Your task to perform on an android device: Show the shopping cart on costco.com. Search for "razer thresher" on costco.com, select the first entry, add it to the cart, then select checkout. Image 0: 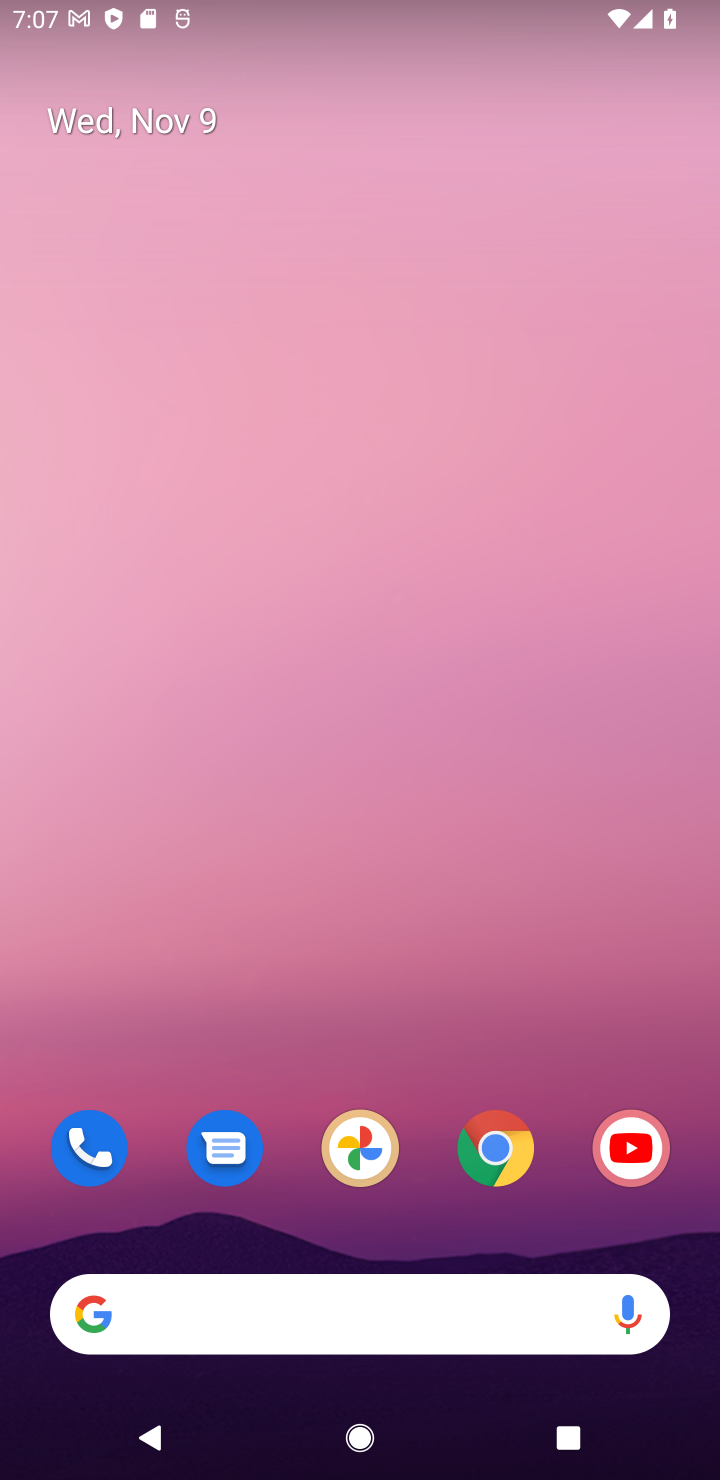
Step 0: click (515, 1160)
Your task to perform on an android device: Show the shopping cart on costco.com. Search for "razer thresher" on costco.com, select the first entry, add it to the cart, then select checkout. Image 1: 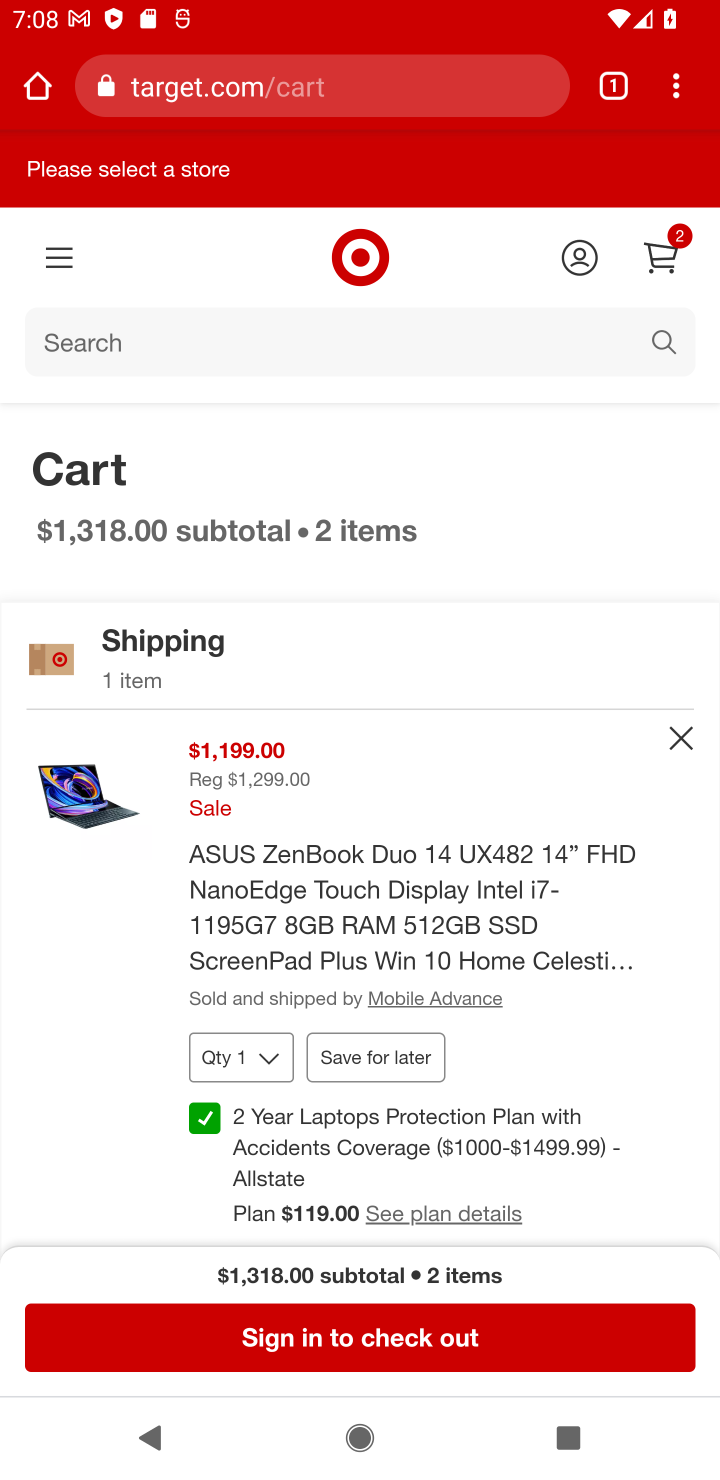
Step 1: click (187, 81)
Your task to perform on an android device: Show the shopping cart on costco.com. Search for "razer thresher" on costco.com, select the first entry, add it to the cart, then select checkout. Image 2: 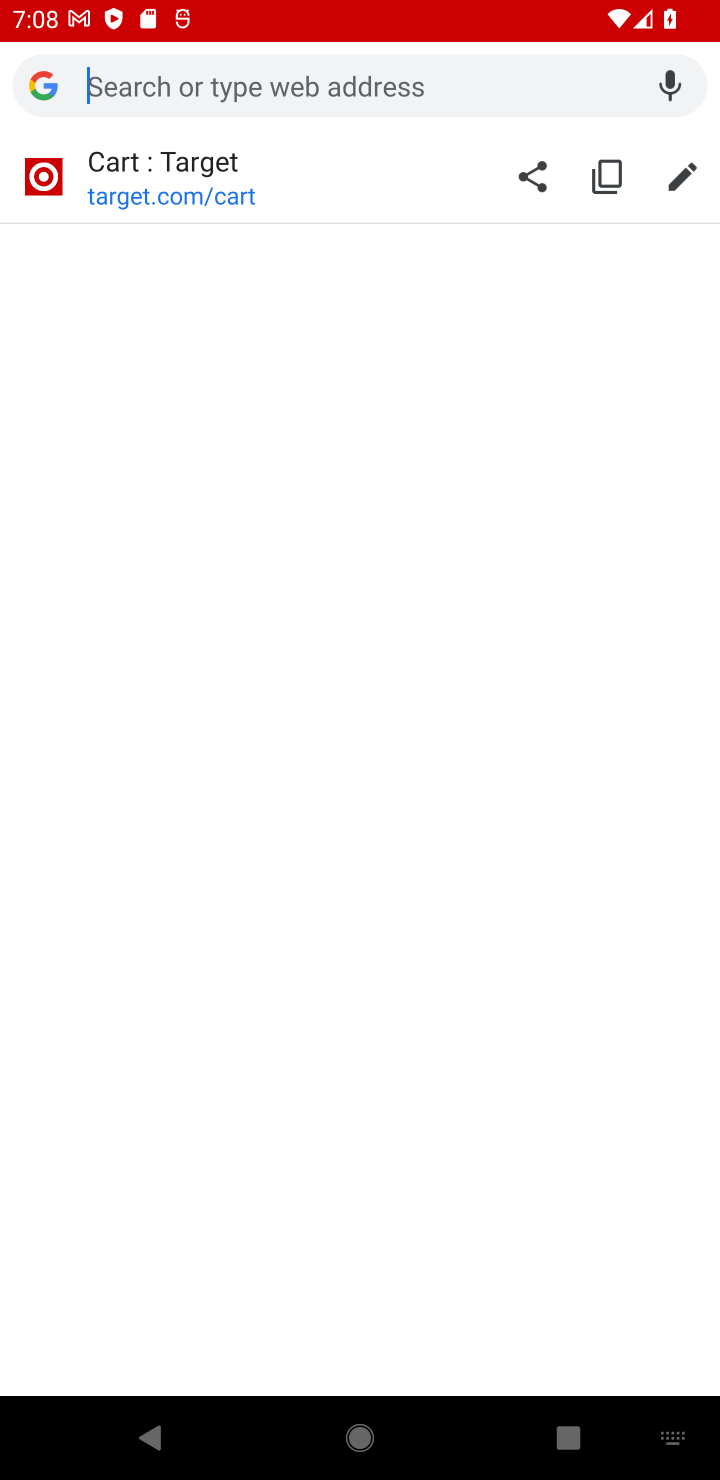
Step 2: type "costo"
Your task to perform on an android device: Show the shopping cart on costco.com. Search for "razer thresher" on costco.com, select the first entry, add it to the cart, then select checkout. Image 3: 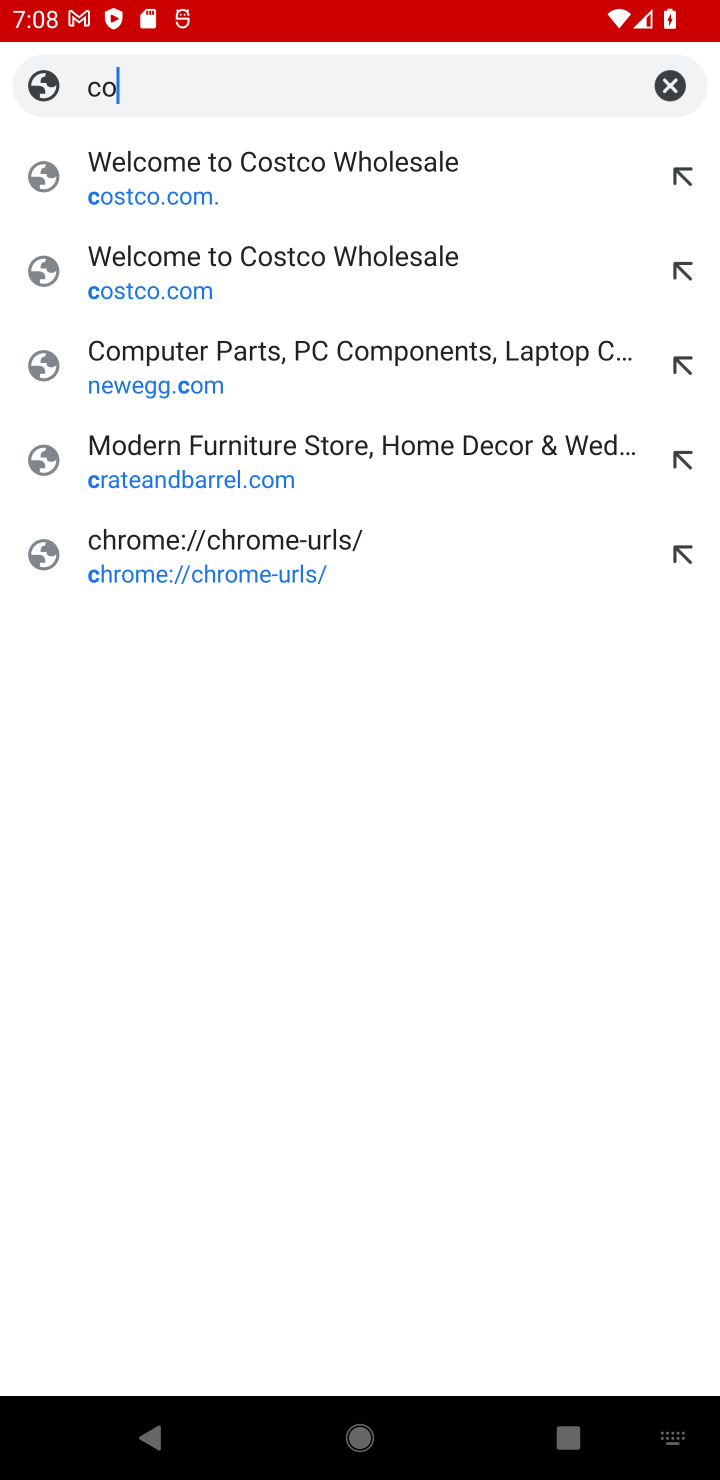
Step 3: type ""
Your task to perform on an android device: Show the shopping cart on costco.com. Search for "razer thresher" on costco.com, select the first entry, add it to the cart, then select checkout. Image 4: 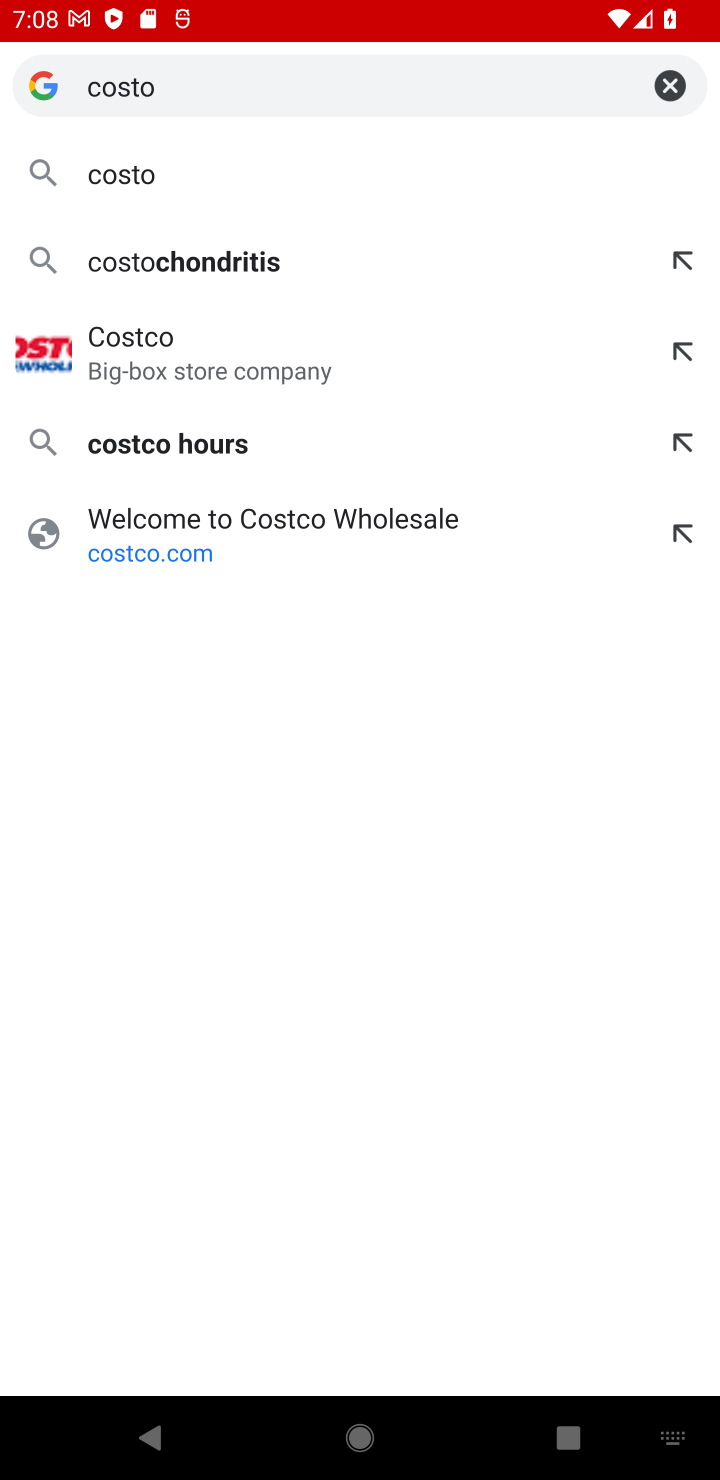
Step 4: click (122, 349)
Your task to perform on an android device: Show the shopping cart on costco.com. Search for "razer thresher" on costco.com, select the first entry, add it to the cart, then select checkout. Image 5: 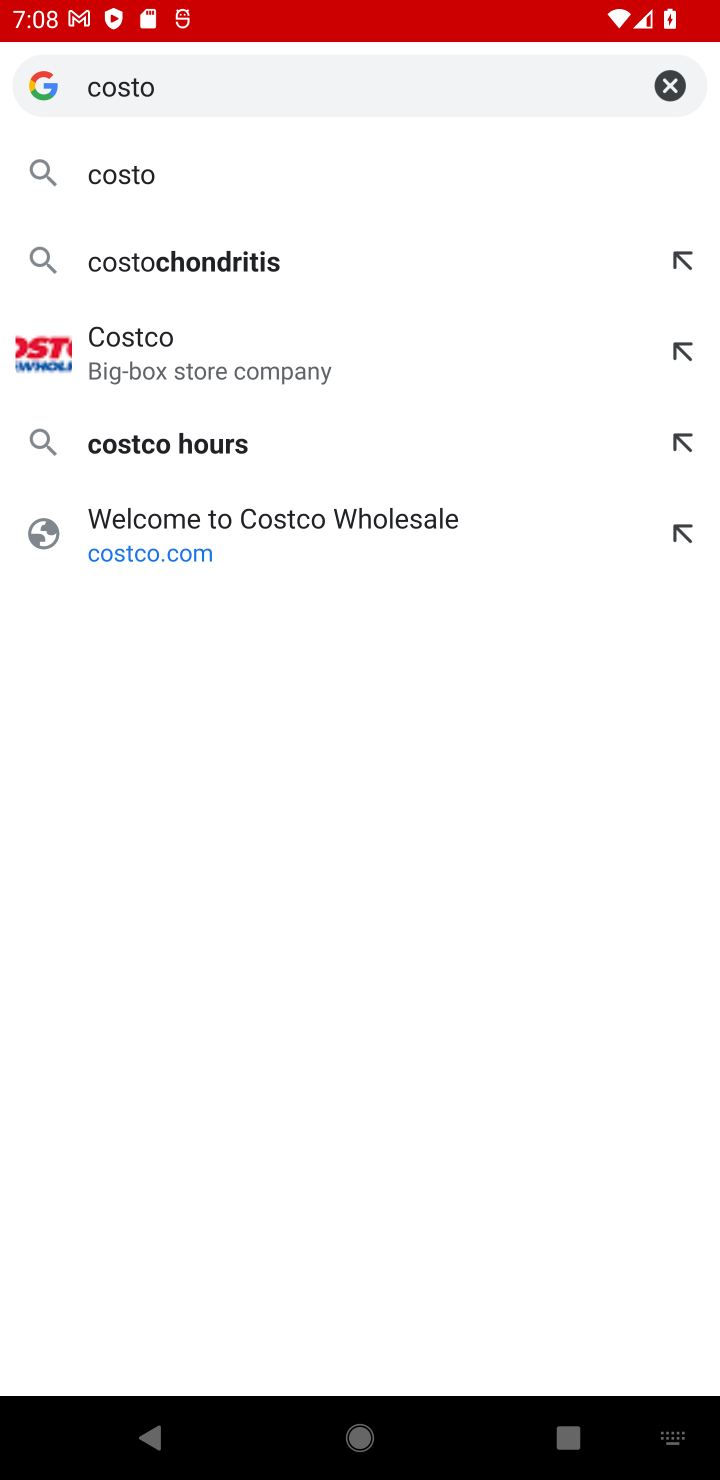
Step 5: click (120, 349)
Your task to perform on an android device: Show the shopping cart on costco.com. Search for "razer thresher" on costco.com, select the first entry, add it to the cart, then select checkout. Image 6: 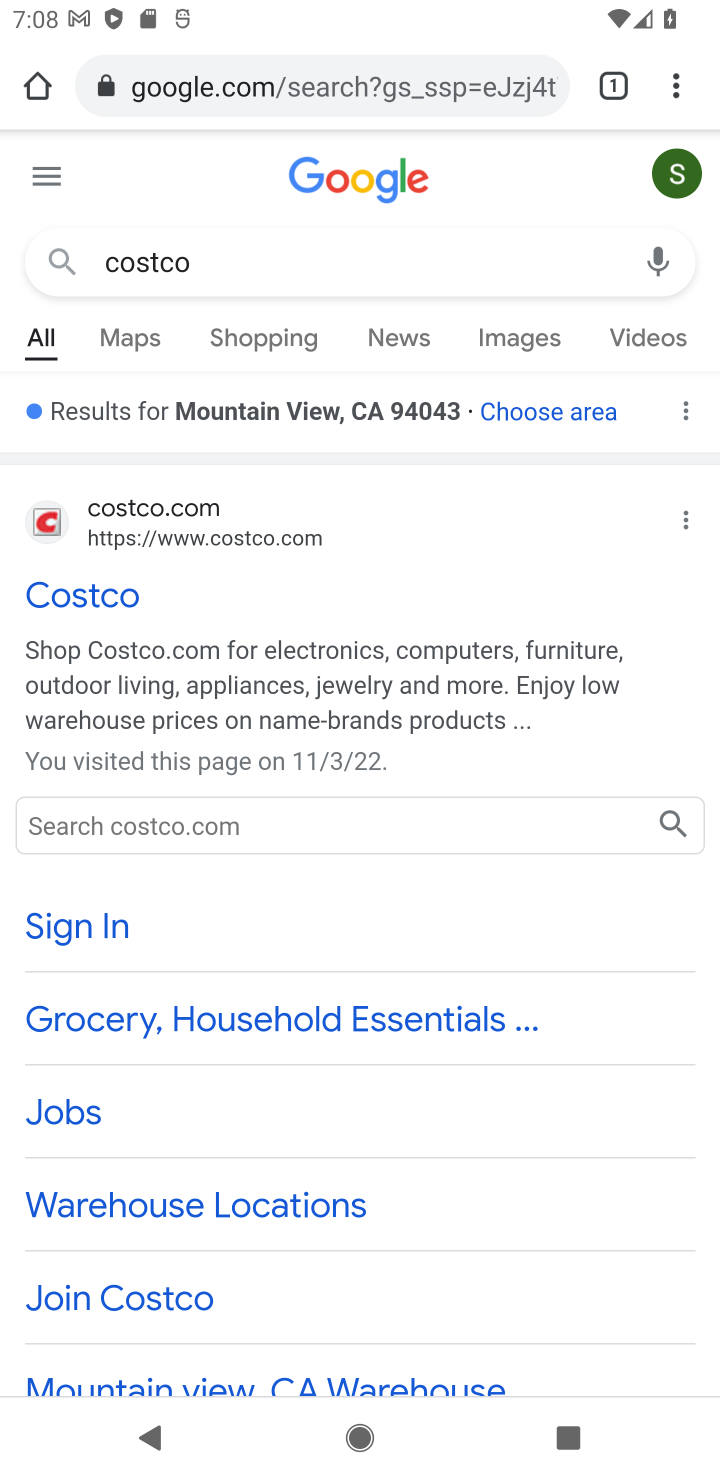
Step 6: click (81, 597)
Your task to perform on an android device: Show the shopping cart on costco.com. Search for "razer thresher" on costco.com, select the first entry, add it to the cart, then select checkout. Image 7: 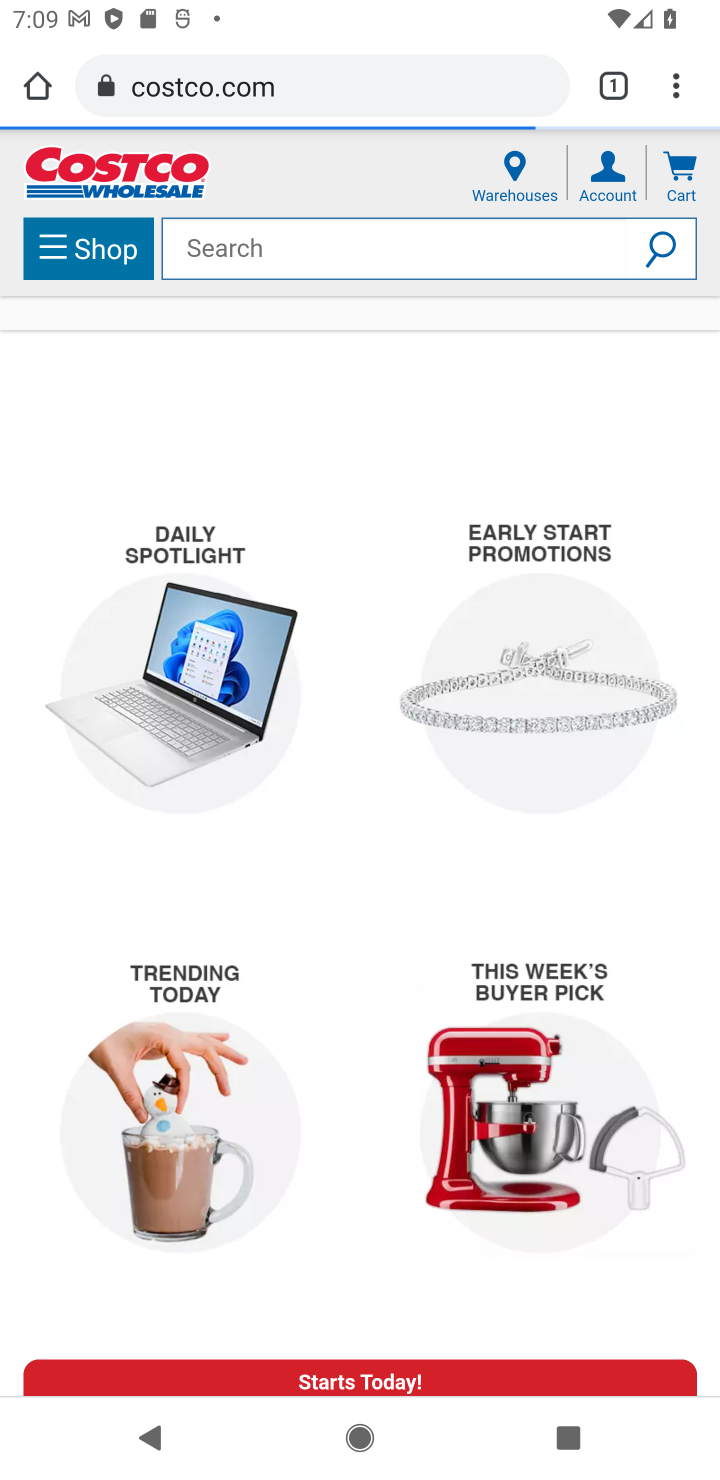
Step 7: click (277, 242)
Your task to perform on an android device: Show the shopping cart on costco.com. Search for "razer thresher" on costco.com, select the first entry, add it to the cart, then select checkout. Image 8: 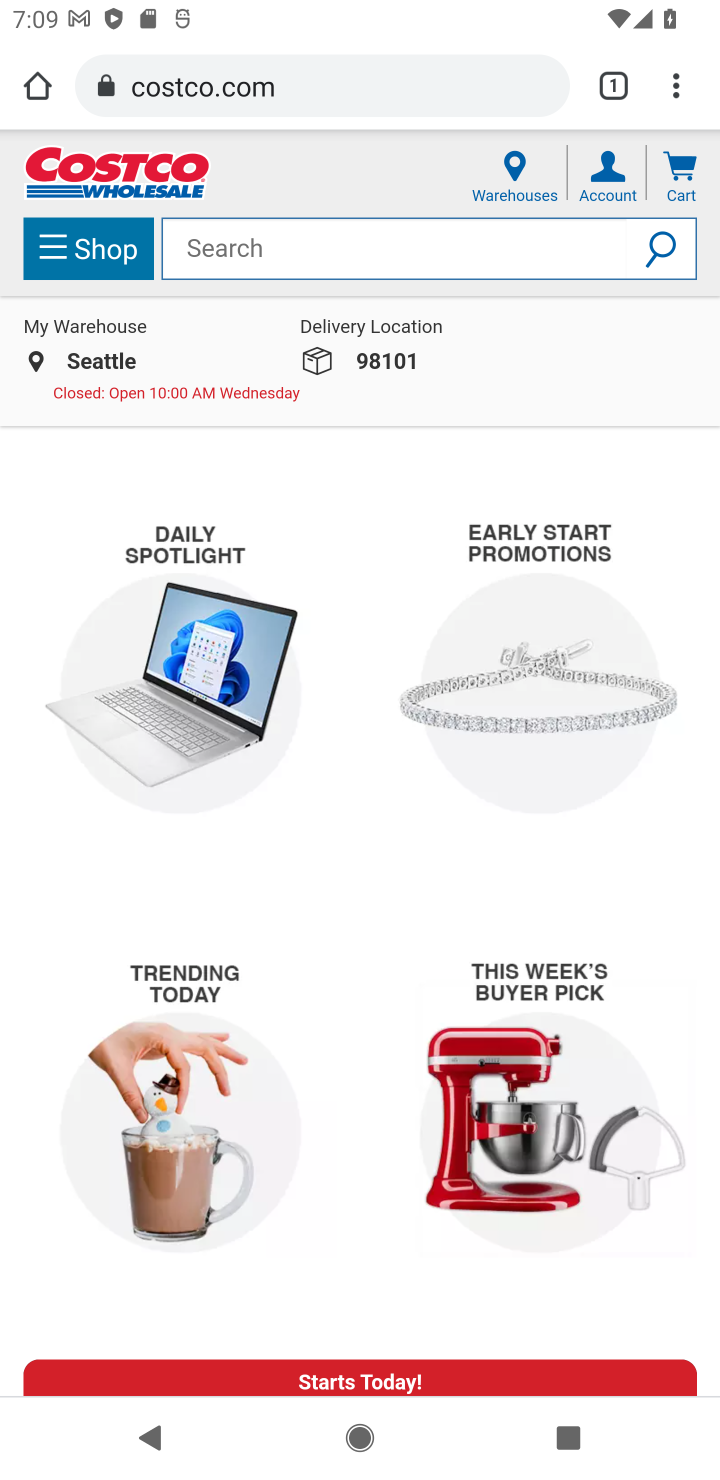
Step 8: click (244, 234)
Your task to perform on an android device: Show the shopping cart on costco.com. Search for "razer thresher" on costco.com, select the first entry, add it to the cart, then select checkout. Image 9: 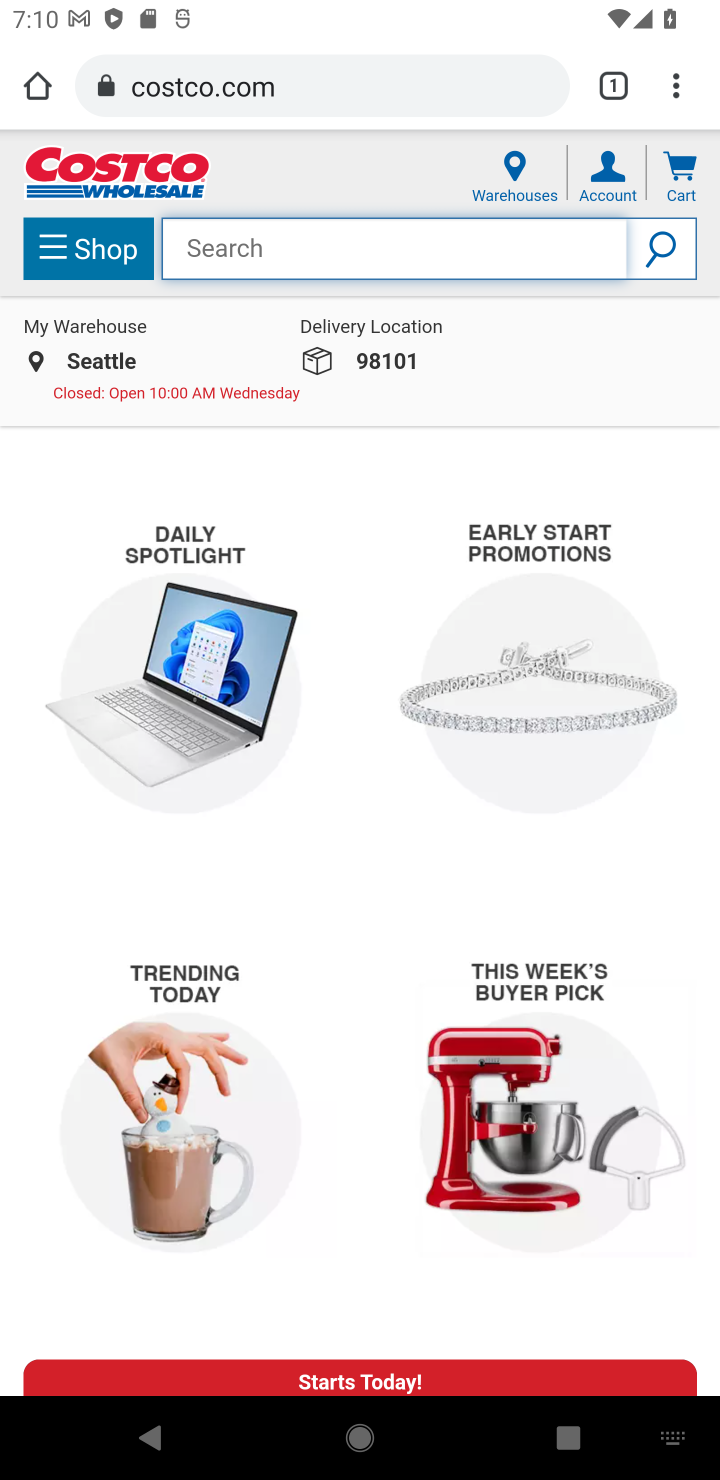
Step 9: type "razer thresher"
Your task to perform on an android device: Show the shopping cart on costco.com. Search for "razer thresher" on costco.com, select the first entry, add it to the cart, then select checkout. Image 10: 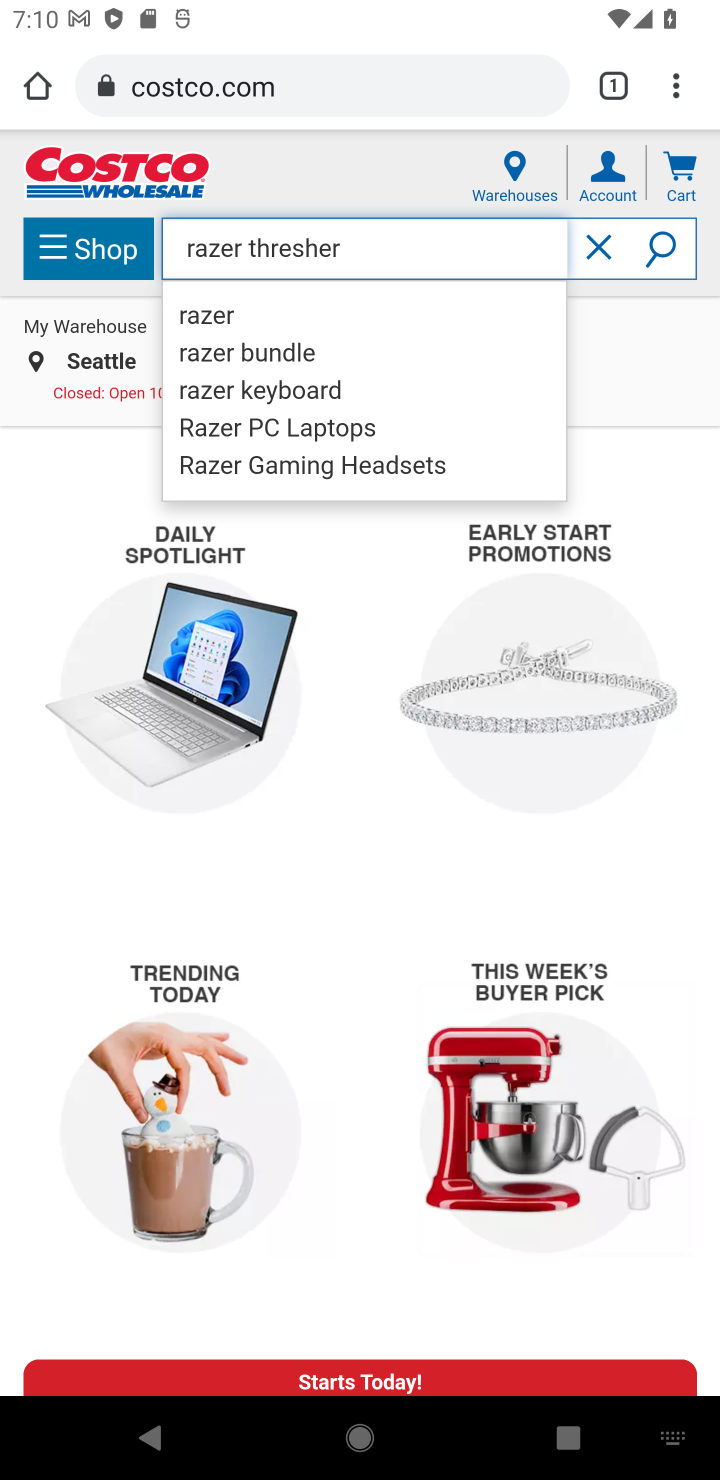
Step 10: click (221, 321)
Your task to perform on an android device: Show the shopping cart on costco.com. Search for "razer thresher" on costco.com, select the first entry, add it to the cart, then select checkout. Image 11: 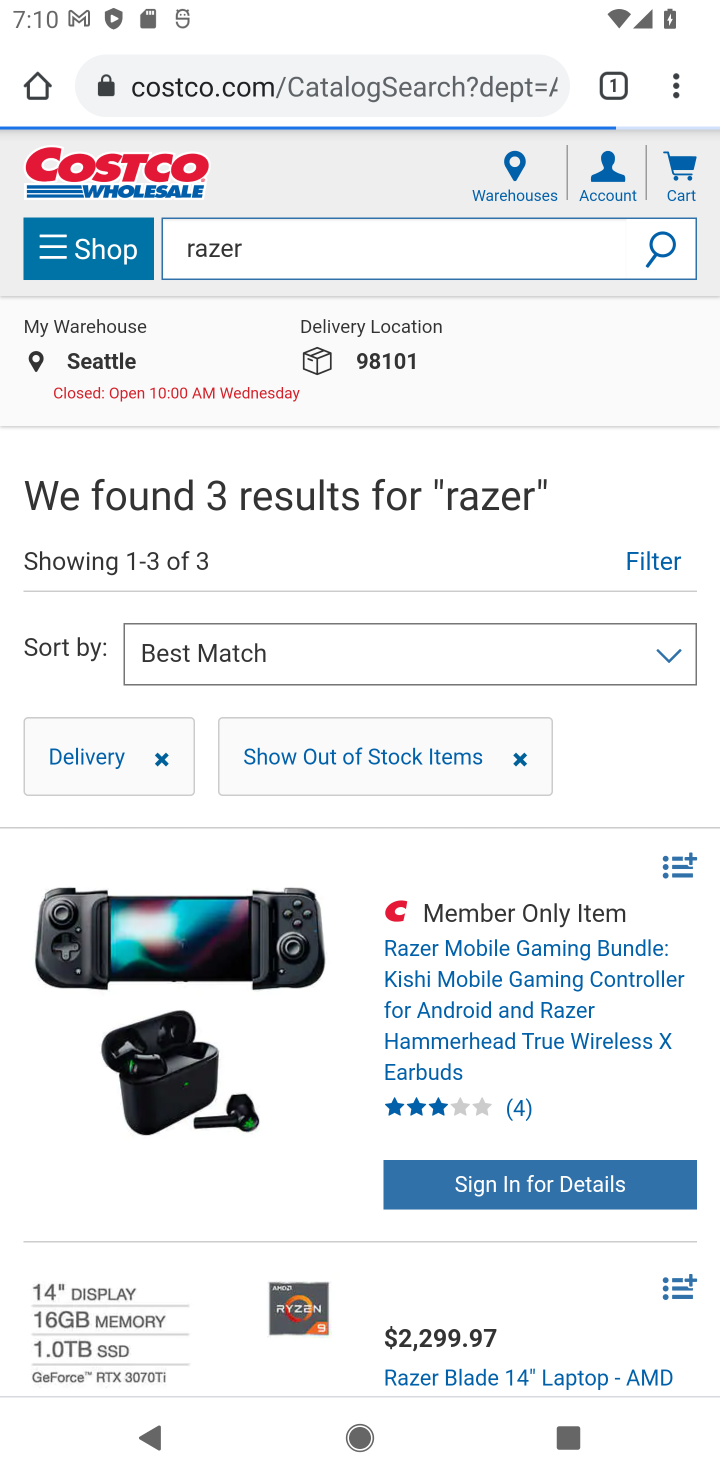
Step 11: drag from (215, 898) to (361, 427)
Your task to perform on an android device: Show the shopping cart on costco.com. Search for "razer thresher" on costco.com, select the first entry, add it to the cart, then select checkout. Image 12: 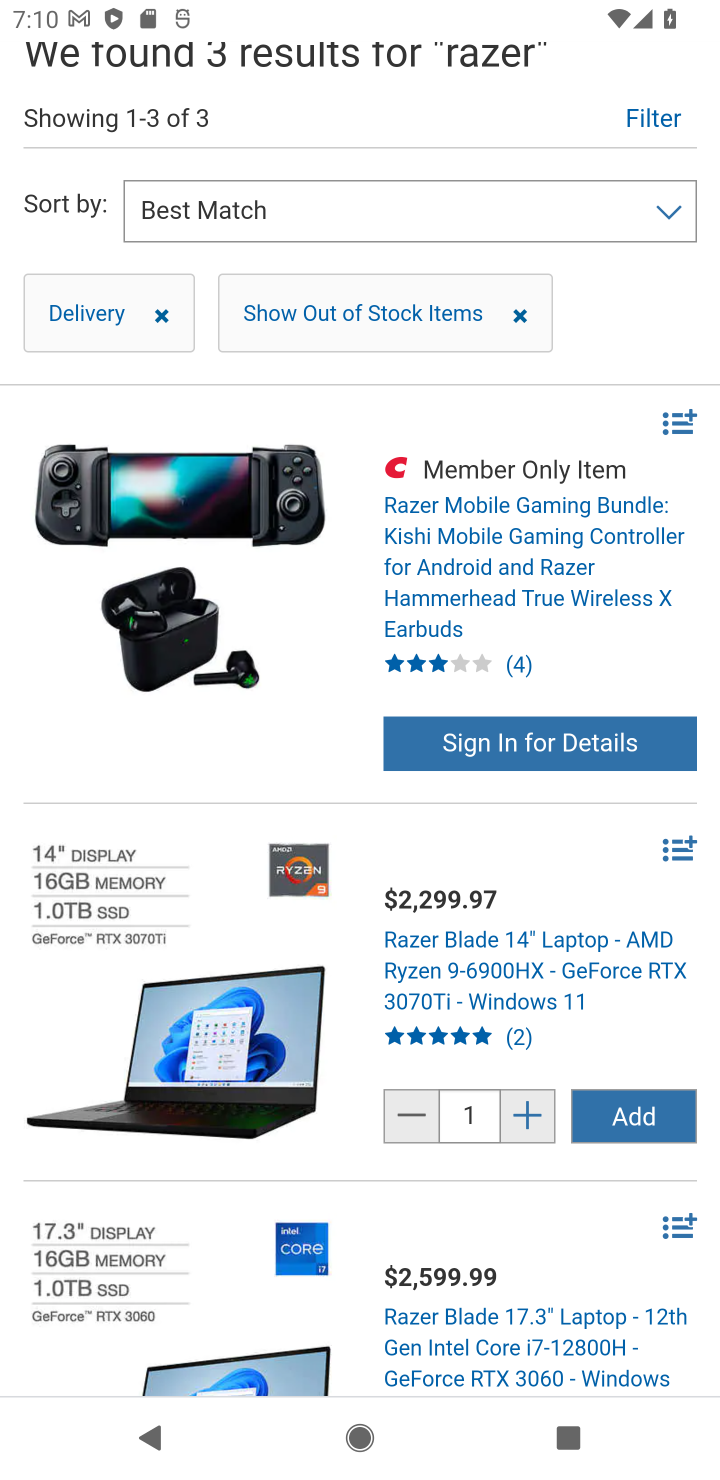
Step 12: click (484, 1013)
Your task to perform on an android device: Show the shopping cart on costco.com. Search for "razer thresher" on costco.com, select the first entry, add it to the cart, then select checkout. Image 13: 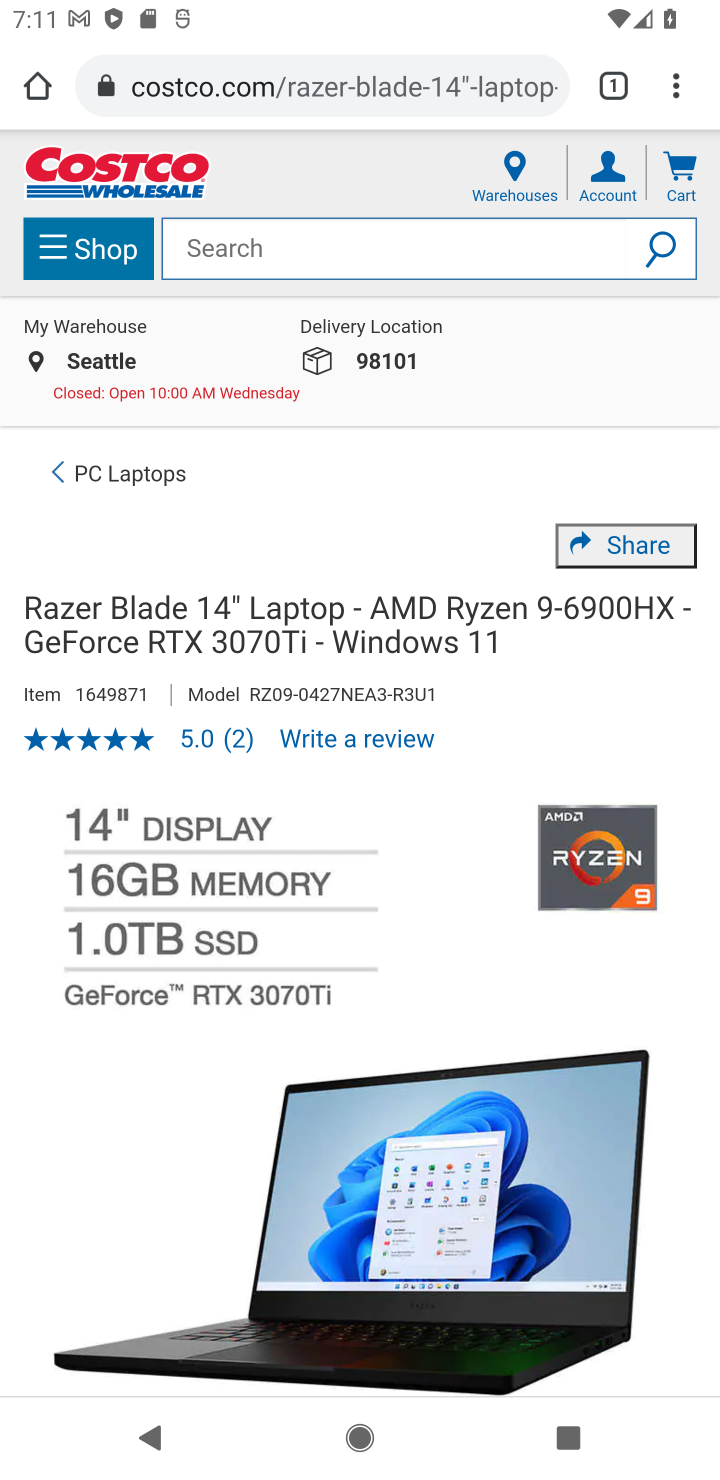
Step 13: task complete